Your task to perform on an android device: Open calendar and show me the first week of next month Image 0: 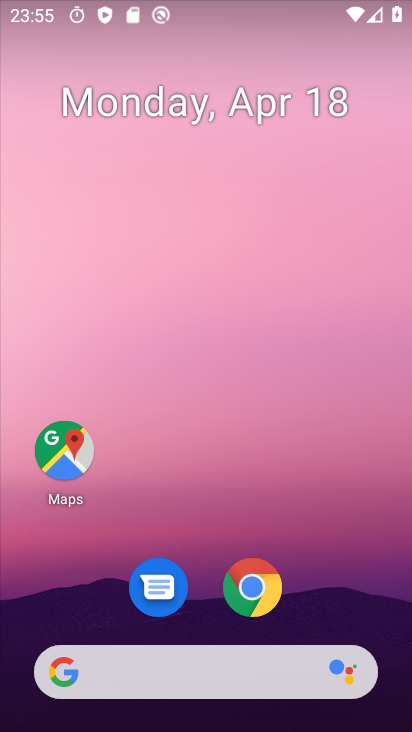
Step 0: drag from (363, 594) to (358, 140)
Your task to perform on an android device: Open calendar and show me the first week of next month Image 1: 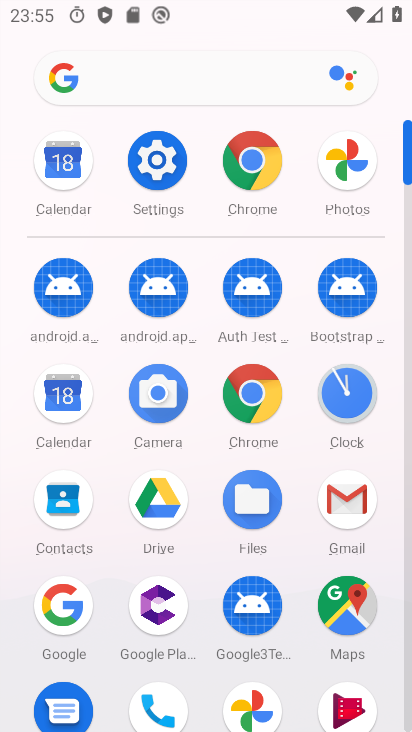
Step 1: click (57, 390)
Your task to perform on an android device: Open calendar and show me the first week of next month Image 2: 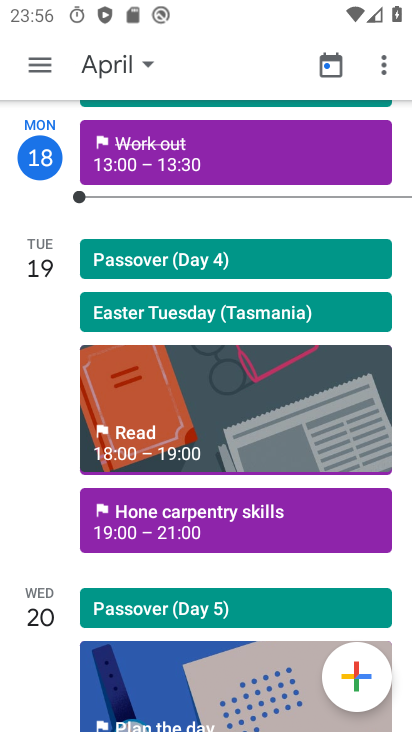
Step 2: click (117, 59)
Your task to perform on an android device: Open calendar and show me the first week of next month Image 3: 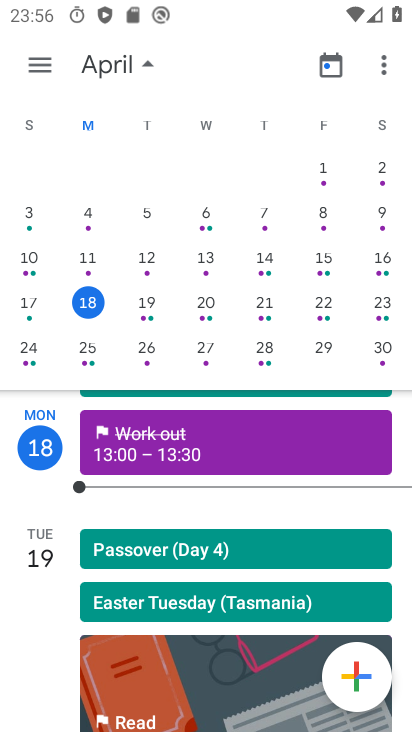
Step 3: drag from (360, 136) to (43, 150)
Your task to perform on an android device: Open calendar and show me the first week of next month Image 4: 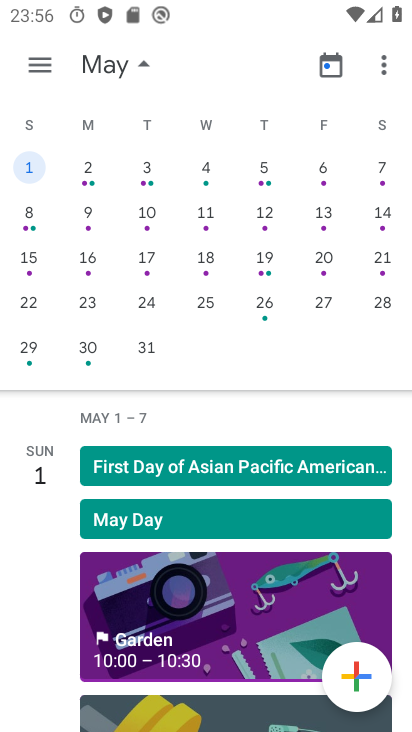
Step 4: click (26, 162)
Your task to perform on an android device: Open calendar and show me the first week of next month Image 5: 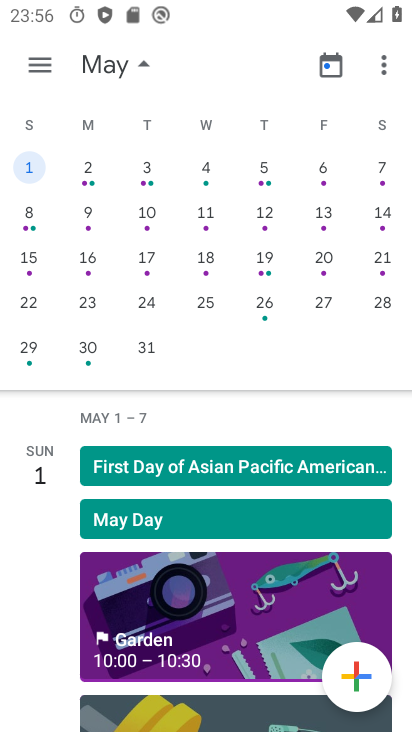
Step 5: task complete